Your task to perform on an android device: open a new tab in the chrome app Image 0: 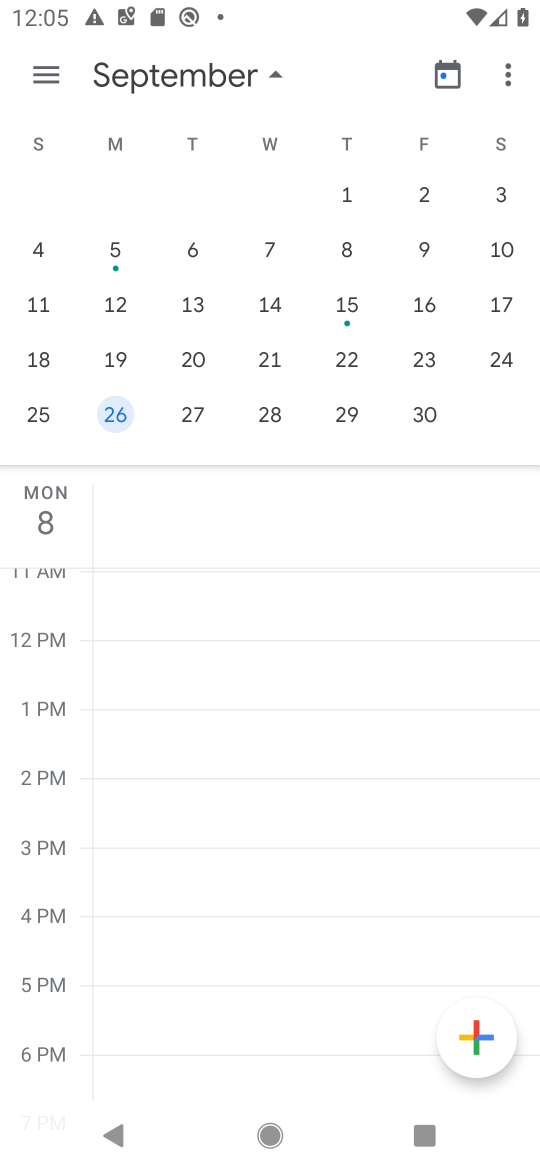
Step 0: press home button
Your task to perform on an android device: open a new tab in the chrome app Image 1: 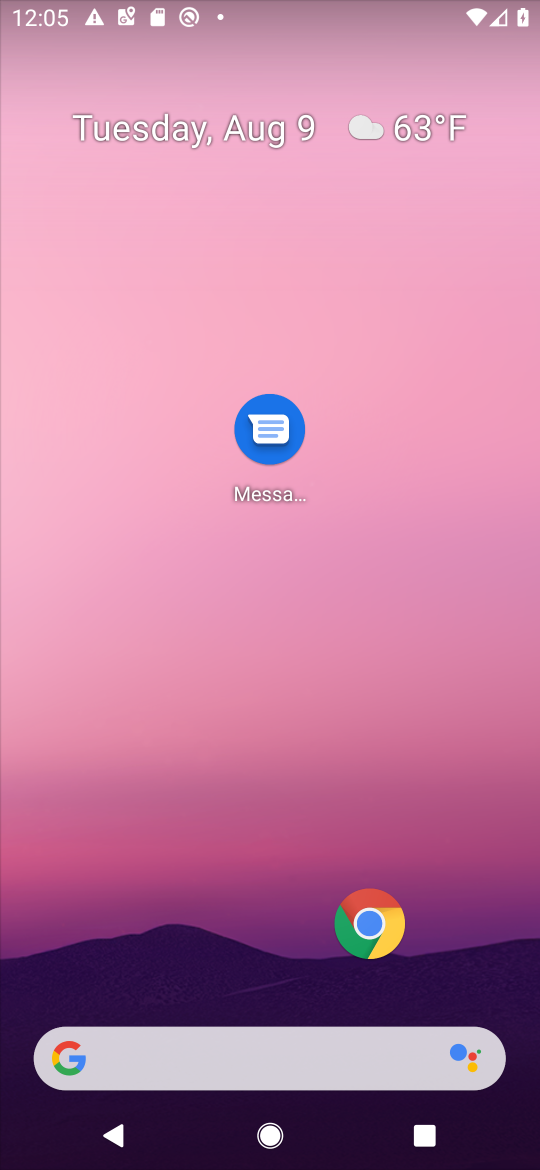
Step 1: click (364, 908)
Your task to perform on an android device: open a new tab in the chrome app Image 2: 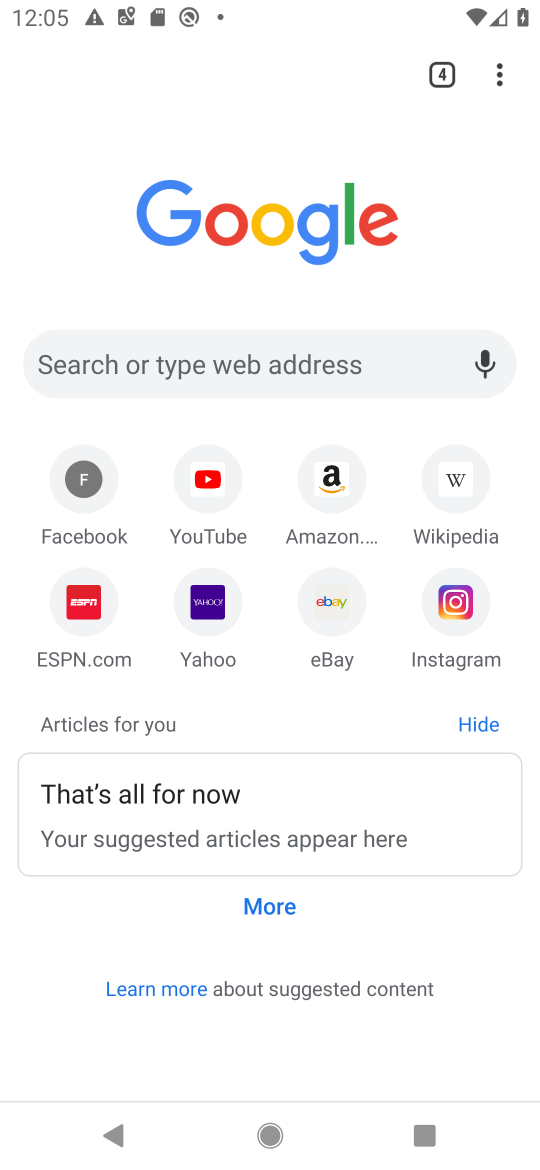
Step 2: click (494, 60)
Your task to perform on an android device: open a new tab in the chrome app Image 3: 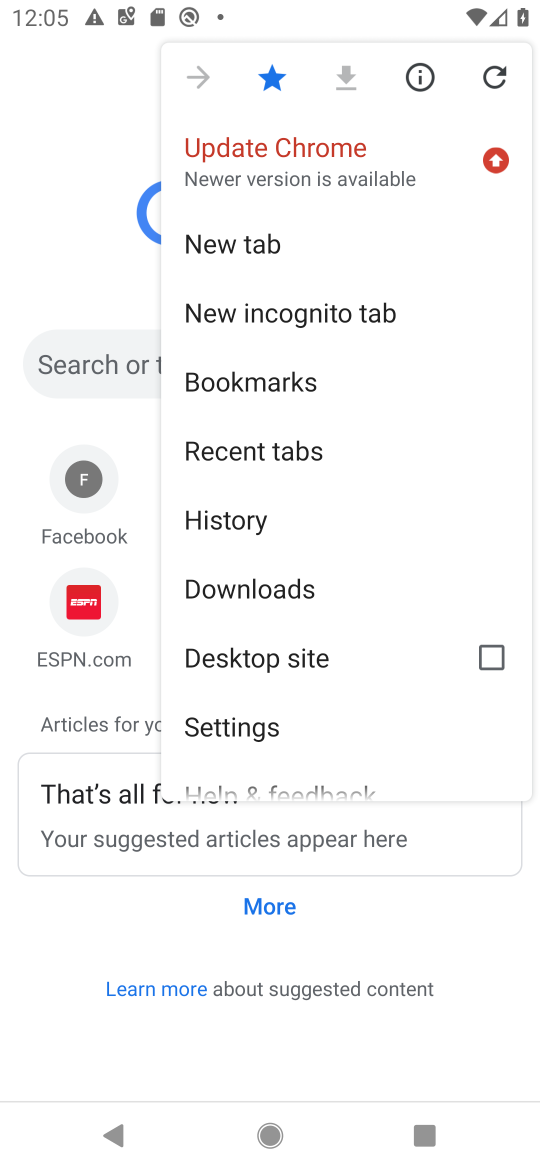
Step 3: click (279, 249)
Your task to perform on an android device: open a new tab in the chrome app Image 4: 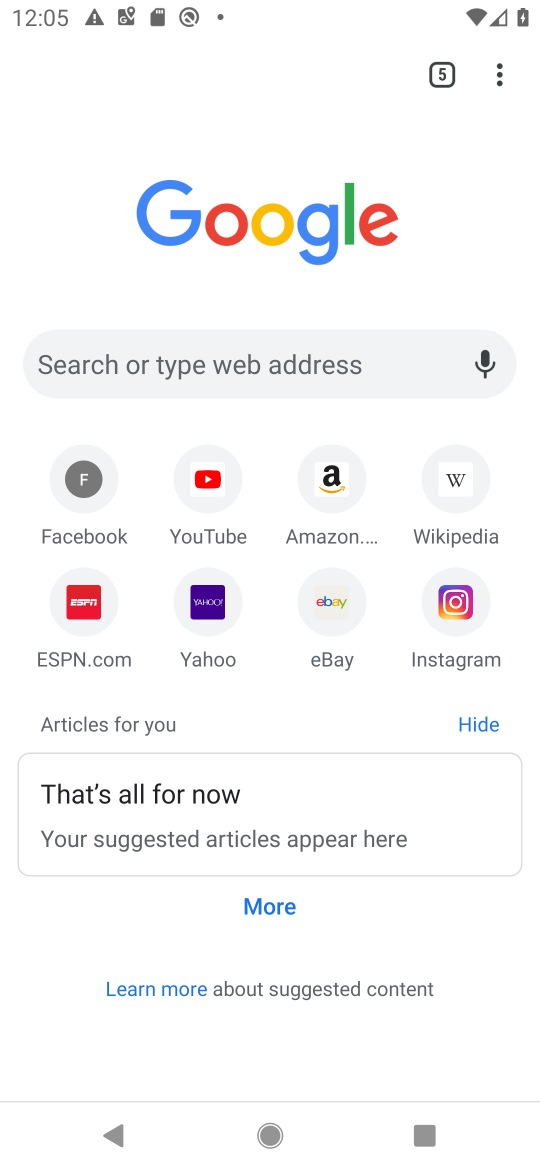
Step 4: task complete